Your task to perform on an android device: delete location history Image 0: 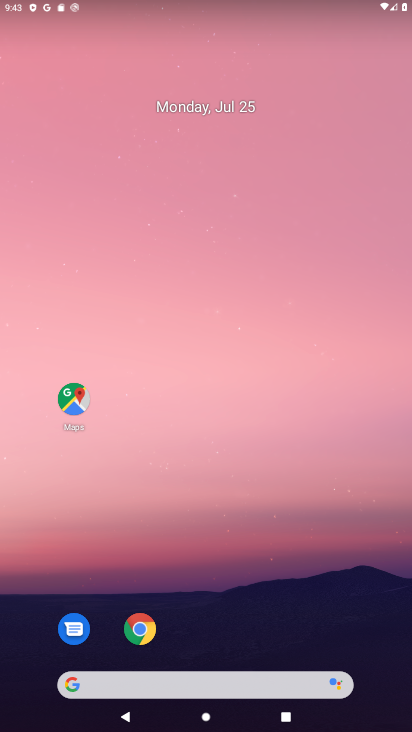
Step 0: click (69, 411)
Your task to perform on an android device: delete location history Image 1: 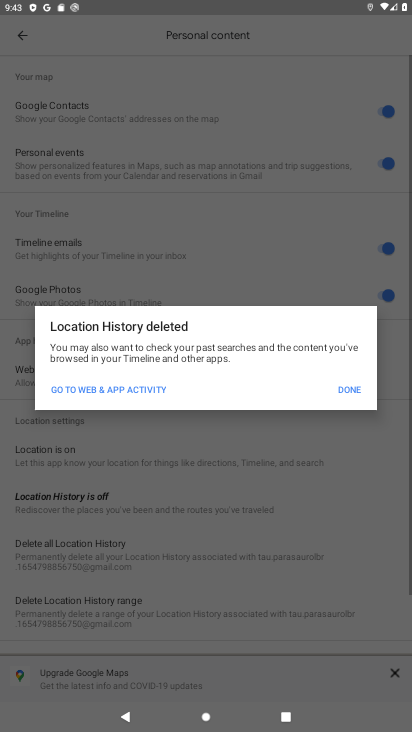
Step 1: click (358, 393)
Your task to perform on an android device: delete location history Image 2: 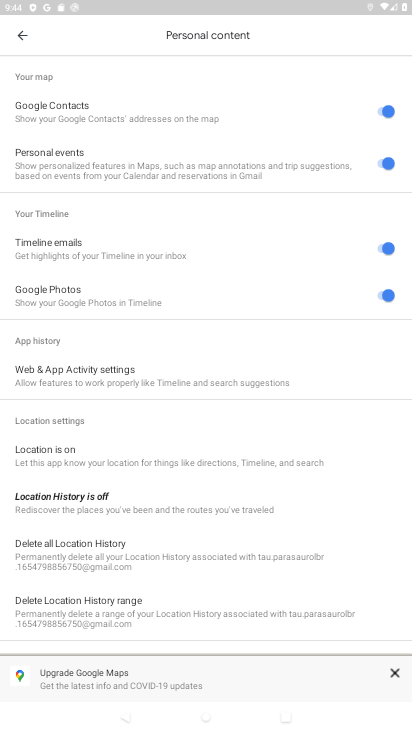
Step 2: task complete